Your task to perform on an android device: see tabs open on other devices in the chrome app Image 0: 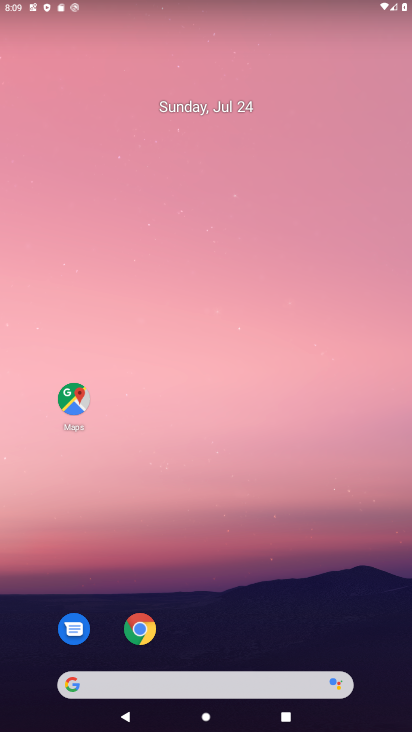
Step 0: drag from (204, 723) to (204, 151)
Your task to perform on an android device: see tabs open on other devices in the chrome app Image 1: 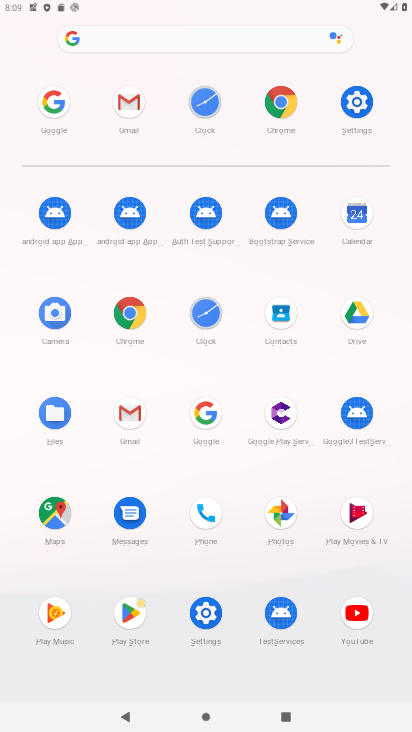
Step 1: click (133, 318)
Your task to perform on an android device: see tabs open on other devices in the chrome app Image 2: 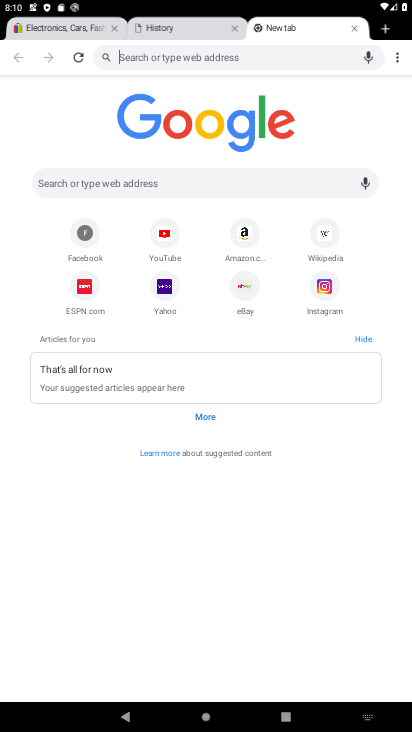
Step 2: task complete